Your task to perform on an android device: What is the recent news? Image 0: 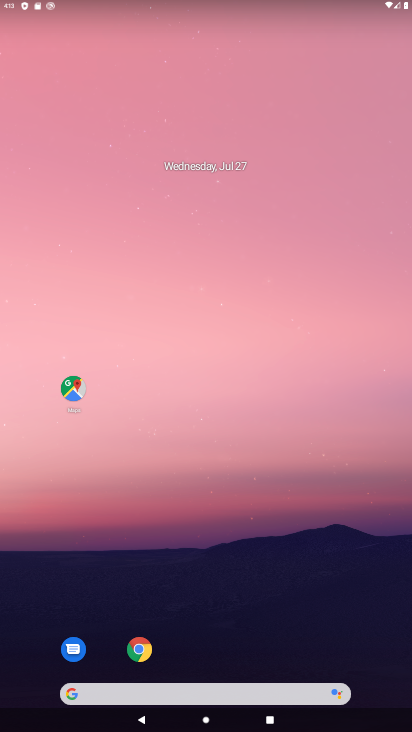
Step 0: drag from (188, 200) to (188, 32)
Your task to perform on an android device: What is the recent news? Image 1: 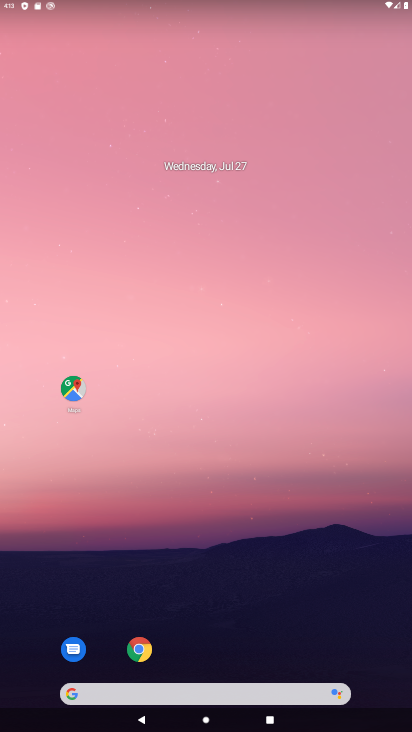
Step 1: drag from (191, 586) to (202, 114)
Your task to perform on an android device: What is the recent news? Image 2: 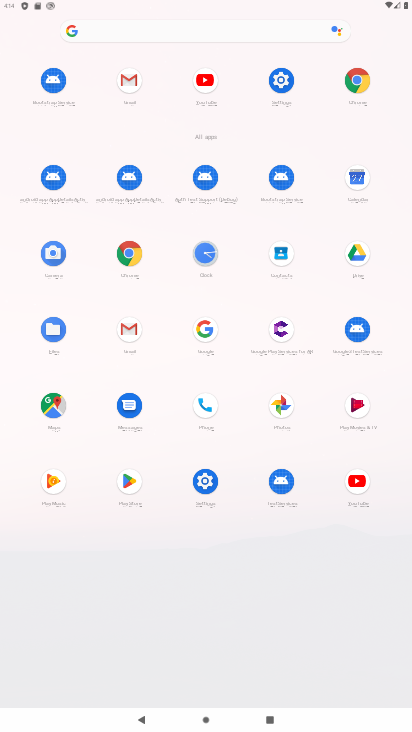
Step 2: click (199, 330)
Your task to perform on an android device: What is the recent news? Image 3: 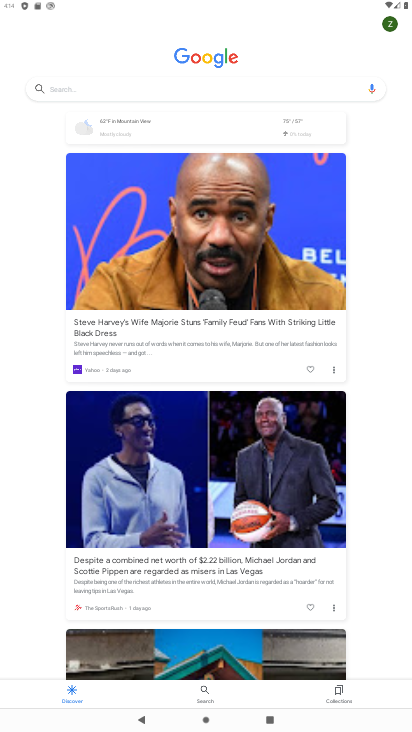
Step 3: click (171, 89)
Your task to perform on an android device: What is the recent news? Image 4: 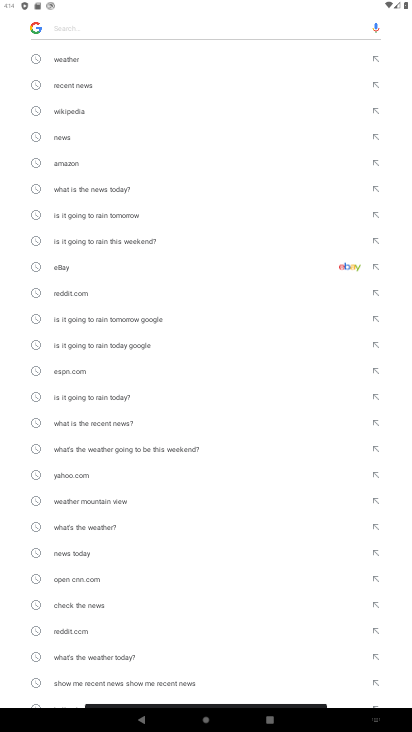
Step 4: click (74, 85)
Your task to perform on an android device: What is the recent news? Image 5: 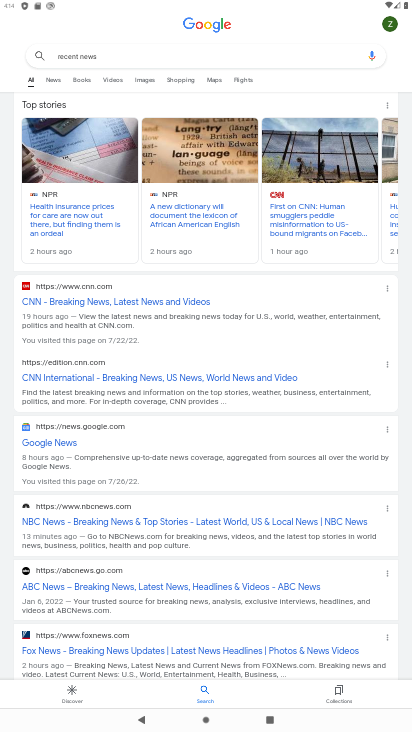
Step 5: task complete